Your task to perform on an android device: all mails in gmail Image 0: 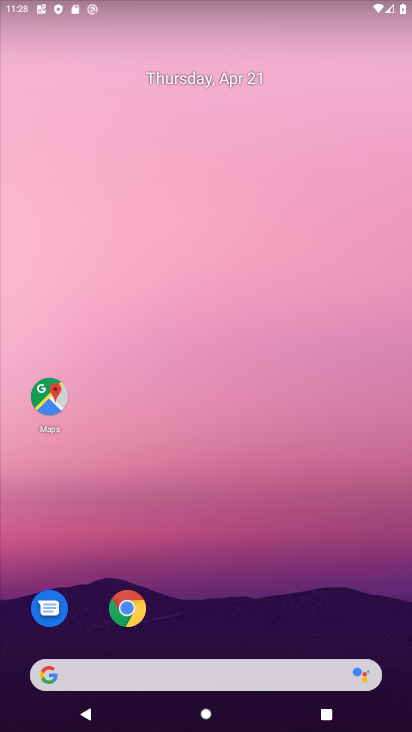
Step 0: drag from (248, 611) to (158, 123)
Your task to perform on an android device: all mails in gmail Image 1: 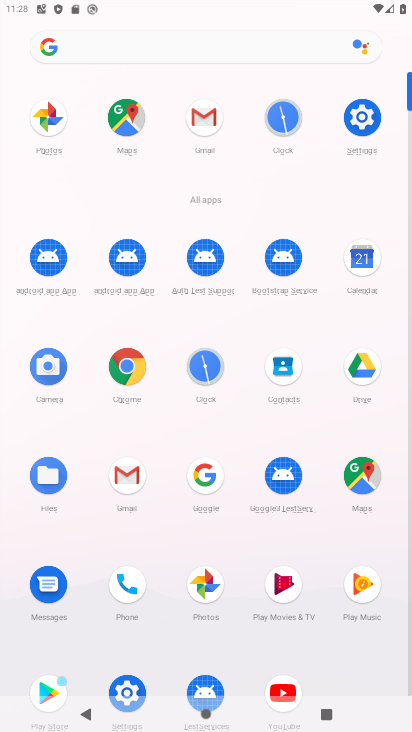
Step 1: click (126, 478)
Your task to perform on an android device: all mails in gmail Image 2: 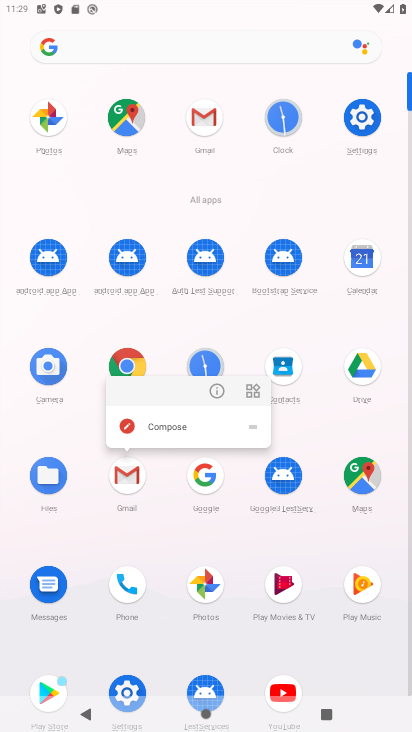
Step 2: click (136, 469)
Your task to perform on an android device: all mails in gmail Image 3: 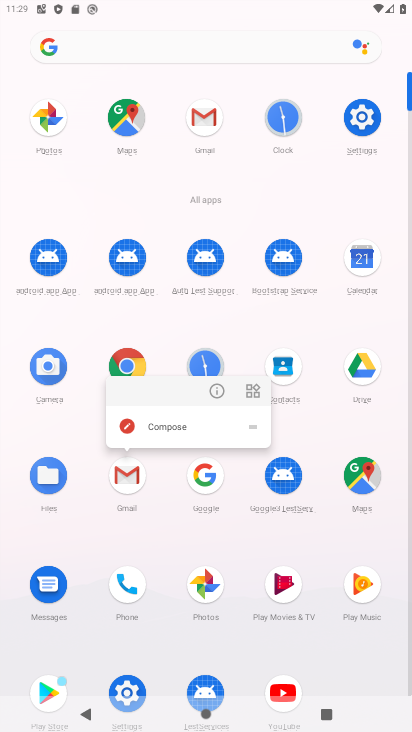
Step 3: click (136, 469)
Your task to perform on an android device: all mails in gmail Image 4: 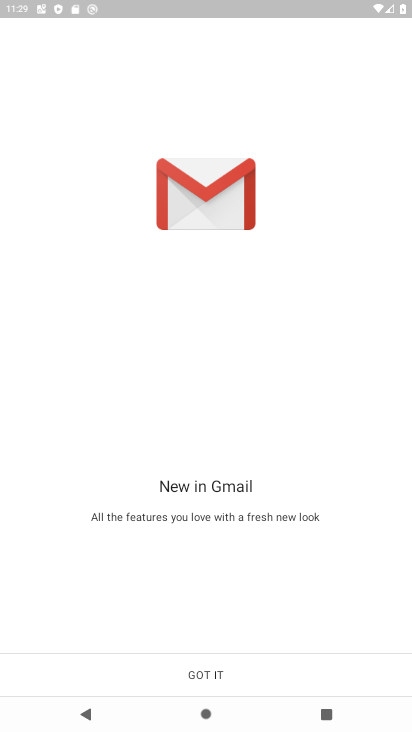
Step 4: click (209, 680)
Your task to perform on an android device: all mails in gmail Image 5: 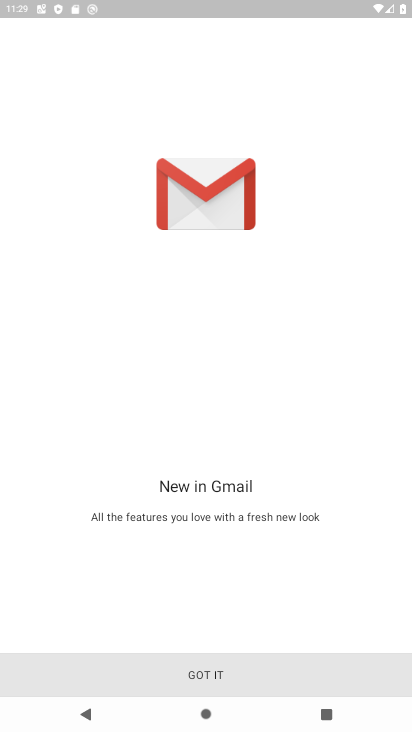
Step 5: click (209, 680)
Your task to perform on an android device: all mails in gmail Image 6: 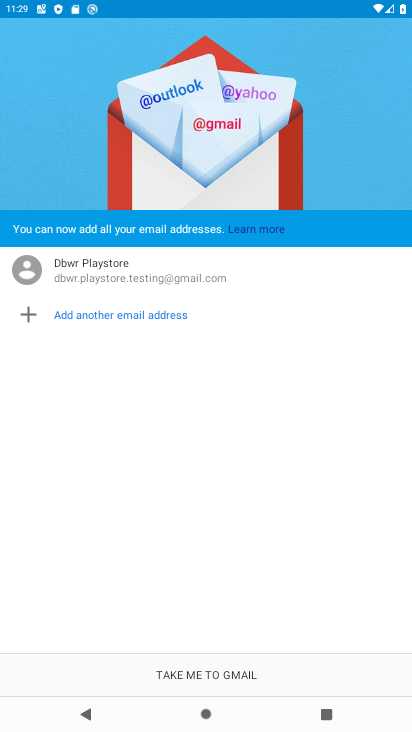
Step 6: click (212, 670)
Your task to perform on an android device: all mails in gmail Image 7: 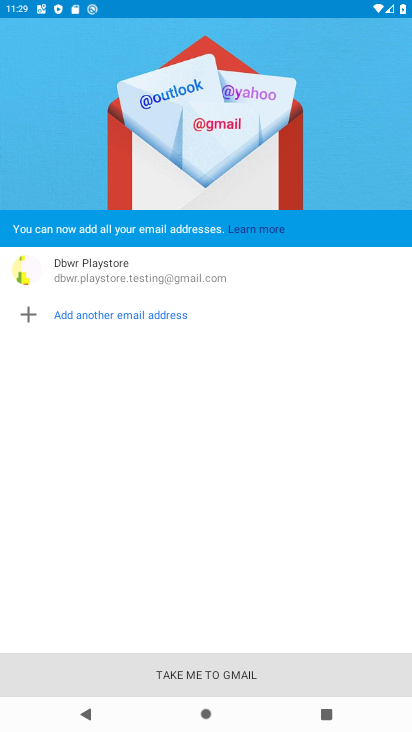
Step 7: click (212, 670)
Your task to perform on an android device: all mails in gmail Image 8: 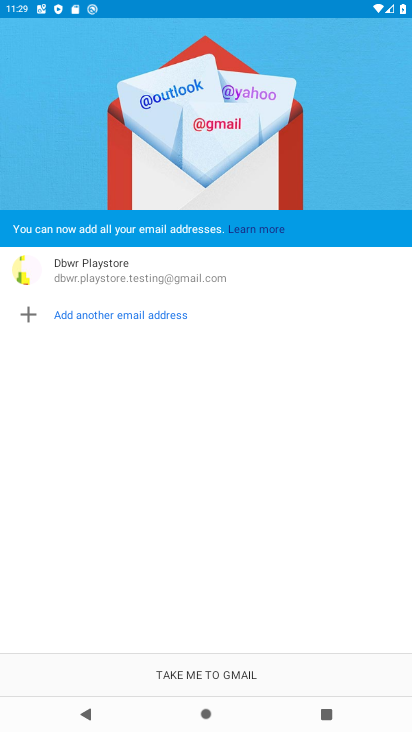
Step 8: click (214, 669)
Your task to perform on an android device: all mails in gmail Image 9: 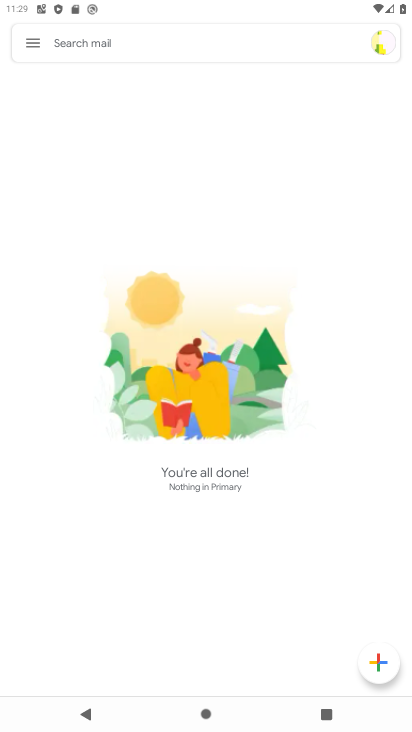
Step 9: click (37, 48)
Your task to perform on an android device: all mails in gmail Image 10: 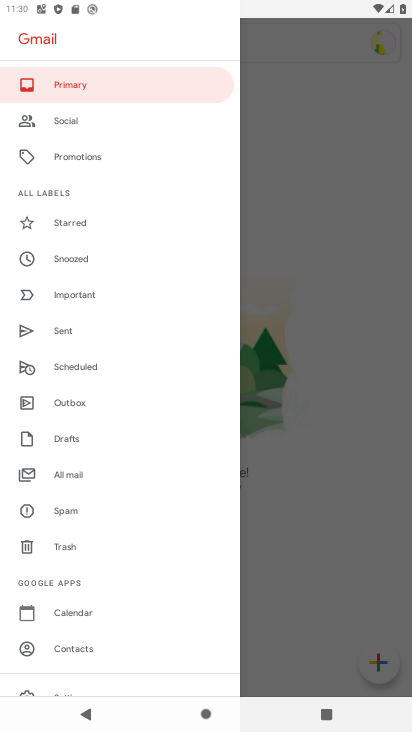
Step 10: click (62, 472)
Your task to perform on an android device: all mails in gmail Image 11: 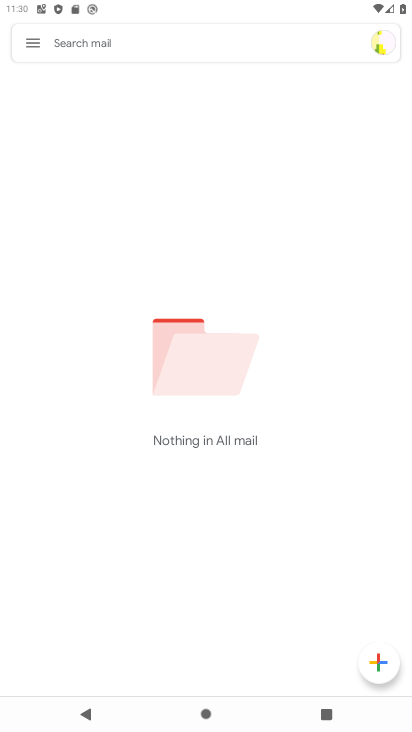
Step 11: click (37, 42)
Your task to perform on an android device: all mails in gmail Image 12: 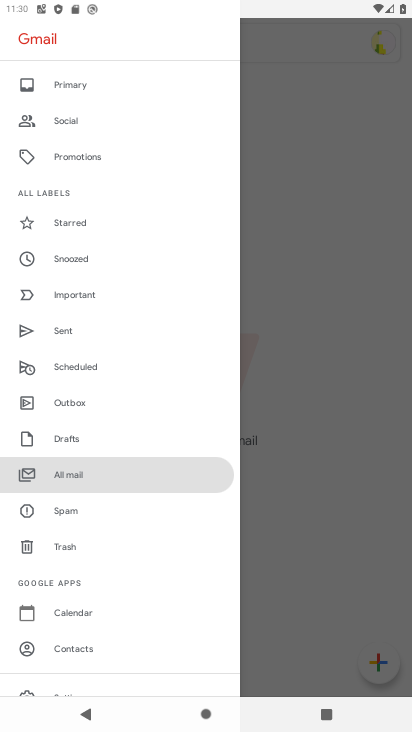
Step 12: click (106, 477)
Your task to perform on an android device: all mails in gmail Image 13: 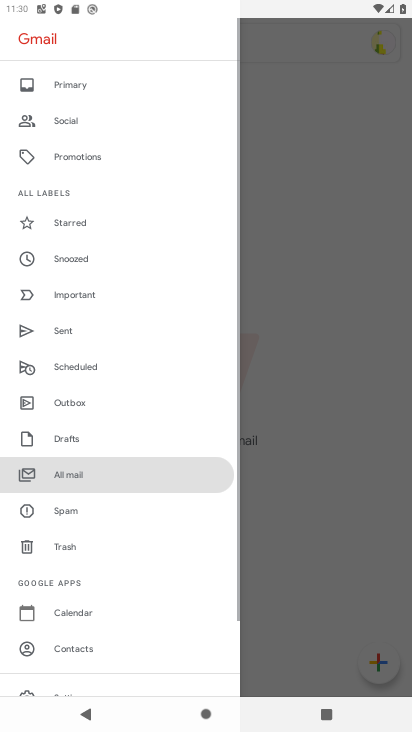
Step 13: click (106, 477)
Your task to perform on an android device: all mails in gmail Image 14: 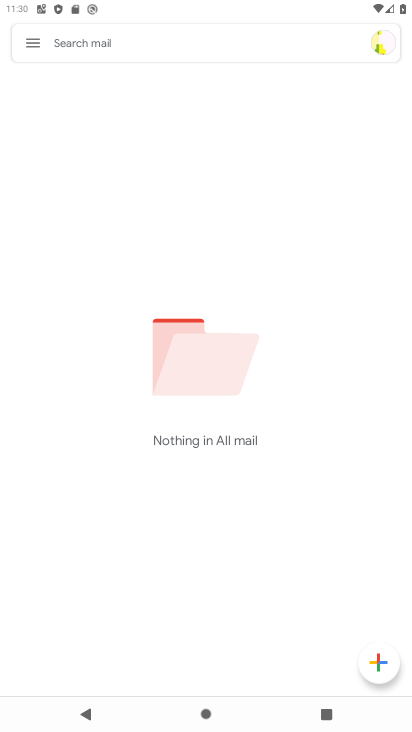
Step 14: click (106, 477)
Your task to perform on an android device: all mails in gmail Image 15: 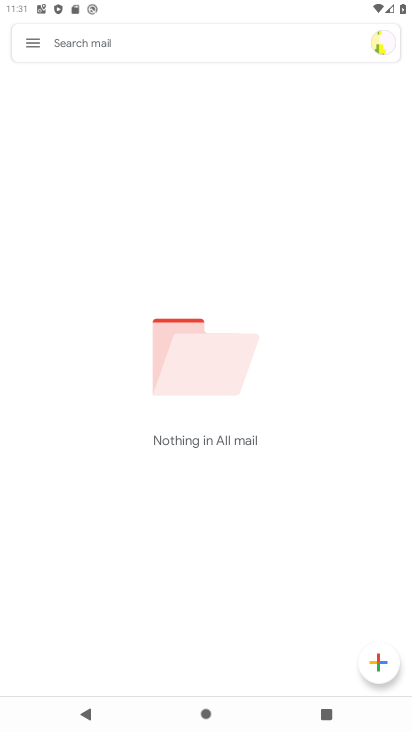
Step 15: task complete